Your task to perform on an android device: Open Youtube and go to the subscriptions tab Image 0: 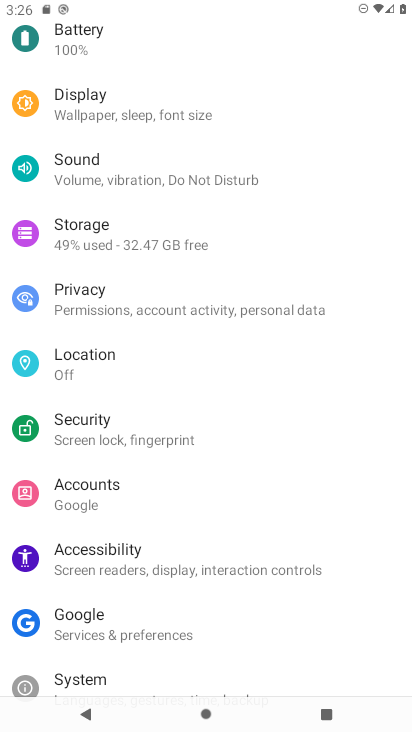
Step 0: press home button
Your task to perform on an android device: Open Youtube and go to the subscriptions tab Image 1: 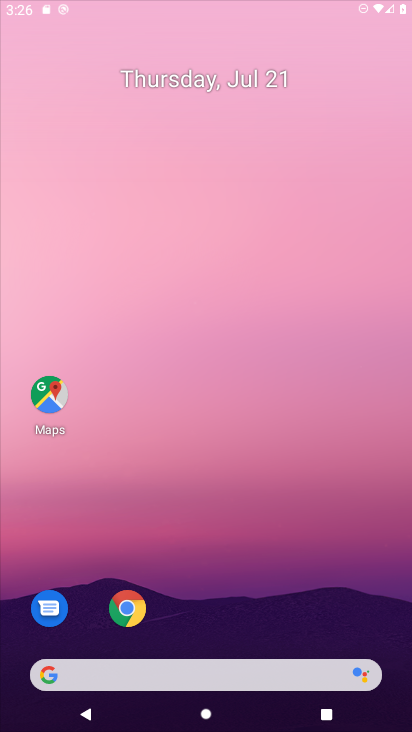
Step 1: click (257, 218)
Your task to perform on an android device: Open Youtube and go to the subscriptions tab Image 2: 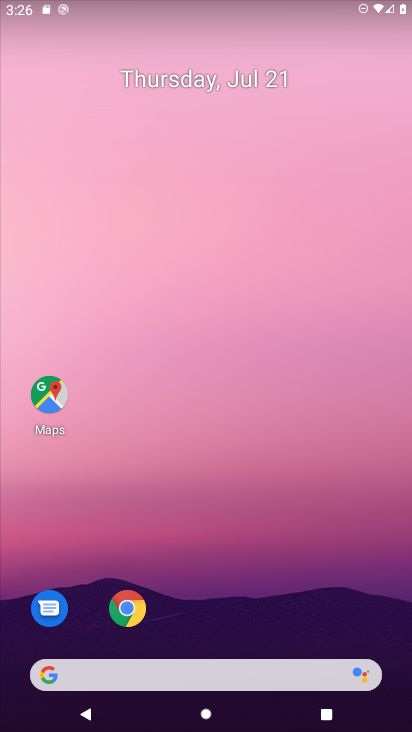
Step 2: drag from (259, 598) to (251, 174)
Your task to perform on an android device: Open Youtube and go to the subscriptions tab Image 3: 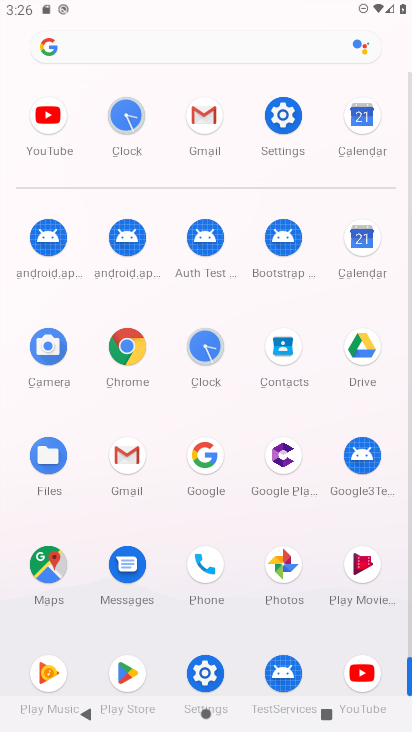
Step 3: click (366, 666)
Your task to perform on an android device: Open Youtube and go to the subscriptions tab Image 4: 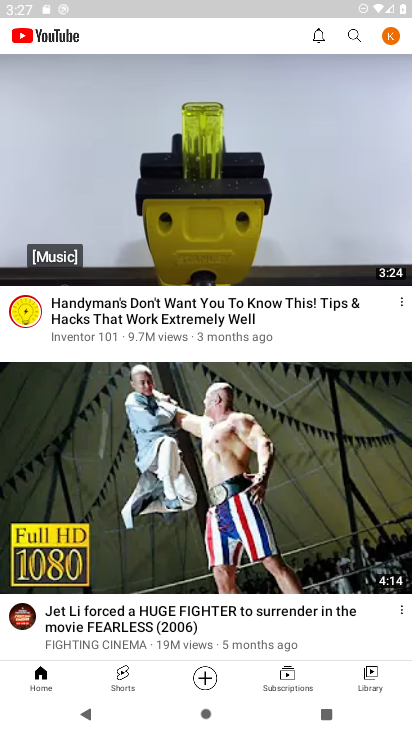
Step 4: click (280, 672)
Your task to perform on an android device: Open Youtube and go to the subscriptions tab Image 5: 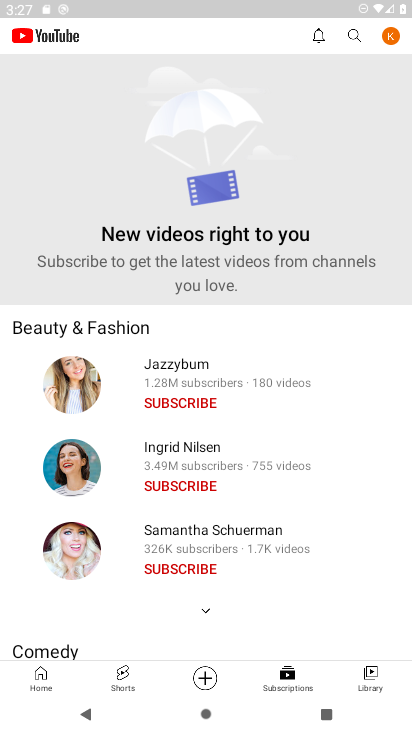
Step 5: task complete